Your task to perform on an android device: Open battery settings Image 0: 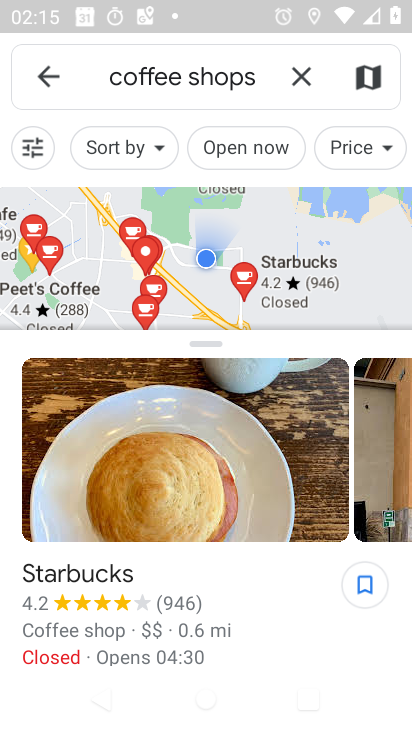
Step 0: press home button
Your task to perform on an android device: Open battery settings Image 1: 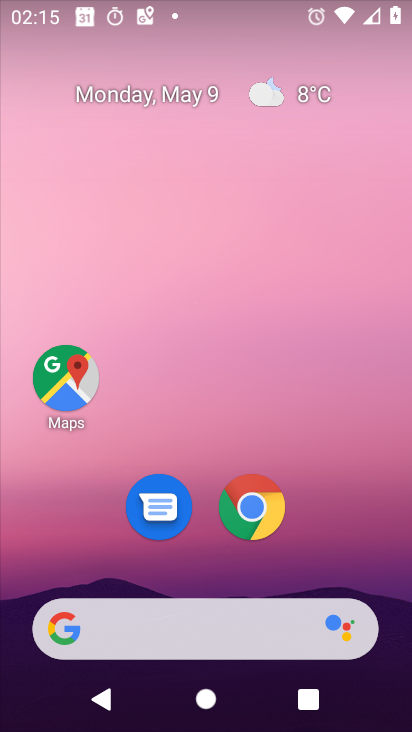
Step 1: drag from (175, 725) to (143, 165)
Your task to perform on an android device: Open battery settings Image 2: 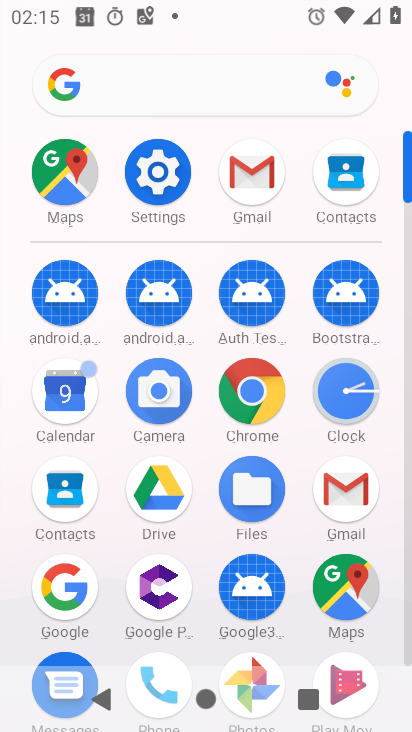
Step 2: click (154, 180)
Your task to perform on an android device: Open battery settings Image 3: 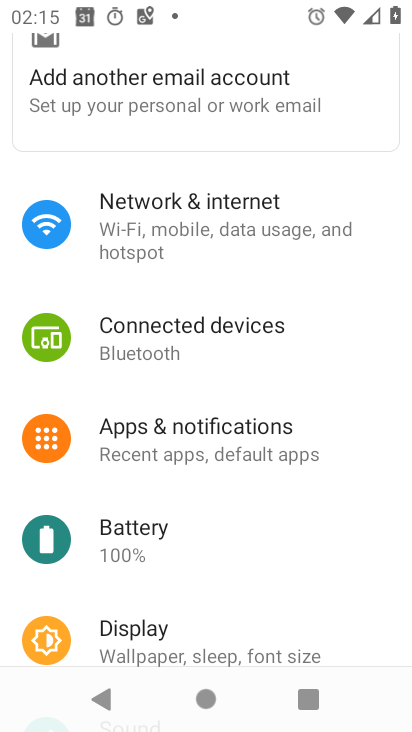
Step 3: click (128, 509)
Your task to perform on an android device: Open battery settings Image 4: 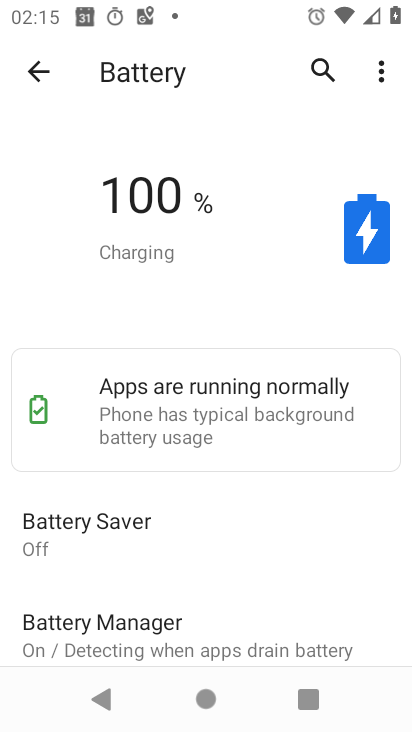
Step 4: task complete